Your task to perform on an android device: turn vacation reply on in the gmail app Image 0: 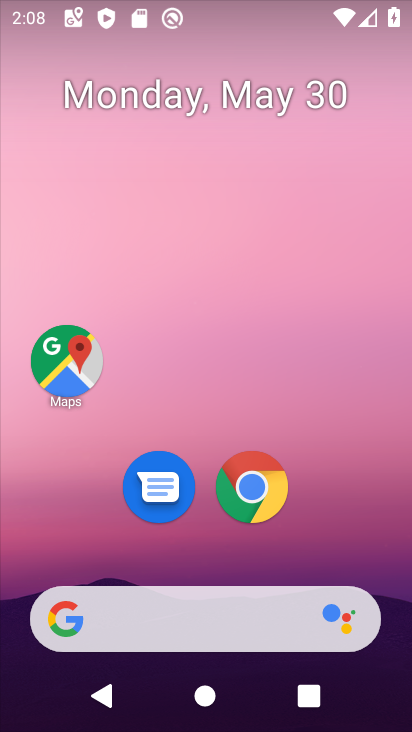
Step 0: drag from (152, 564) to (203, 15)
Your task to perform on an android device: turn vacation reply on in the gmail app Image 1: 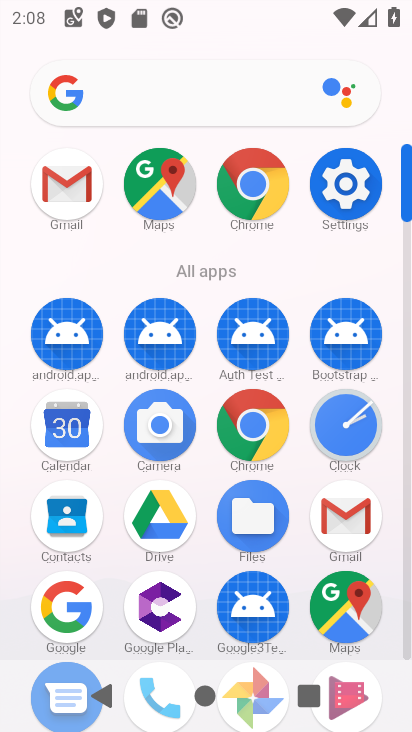
Step 1: click (65, 185)
Your task to perform on an android device: turn vacation reply on in the gmail app Image 2: 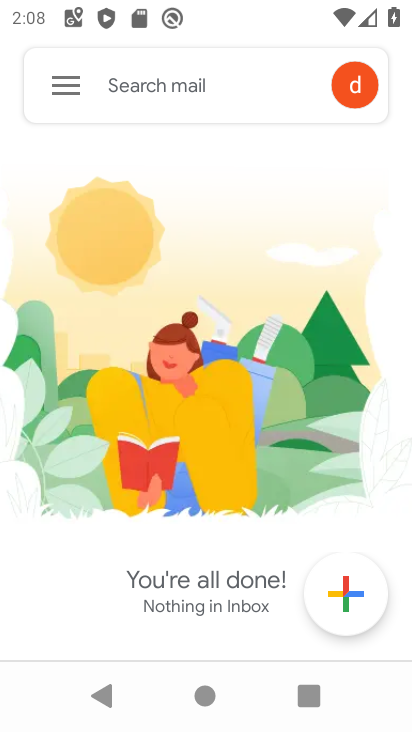
Step 2: click (57, 75)
Your task to perform on an android device: turn vacation reply on in the gmail app Image 3: 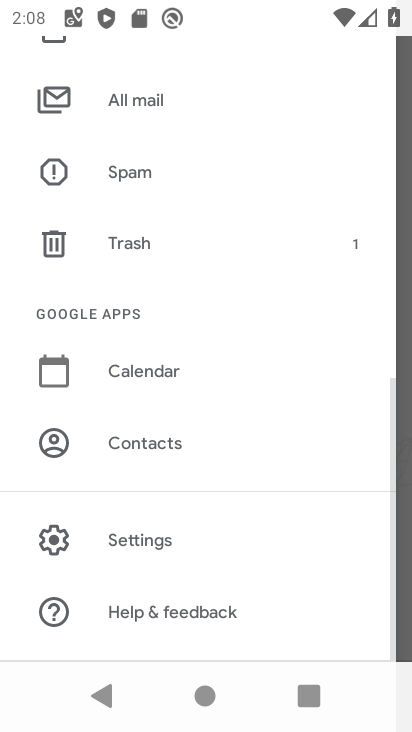
Step 3: click (142, 548)
Your task to perform on an android device: turn vacation reply on in the gmail app Image 4: 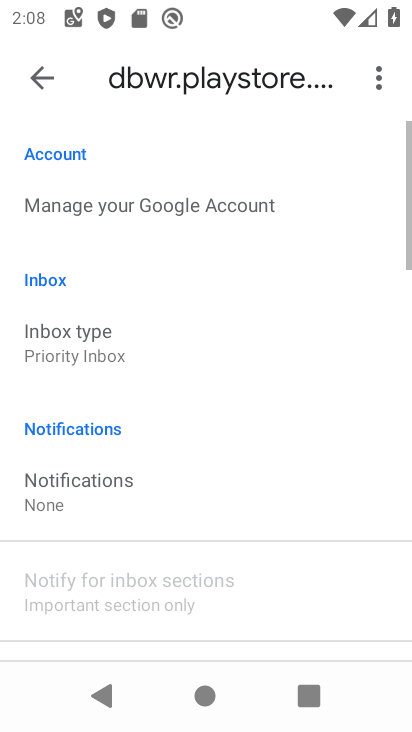
Step 4: drag from (106, 585) to (140, 113)
Your task to perform on an android device: turn vacation reply on in the gmail app Image 5: 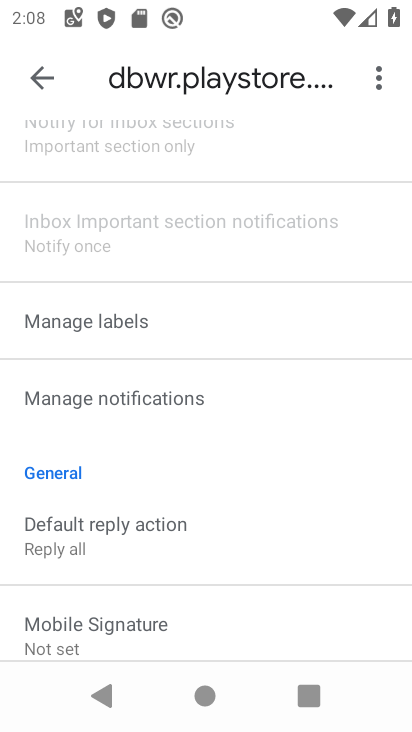
Step 5: drag from (103, 605) to (138, 222)
Your task to perform on an android device: turn vacation reply on in the gmail app Image 6: 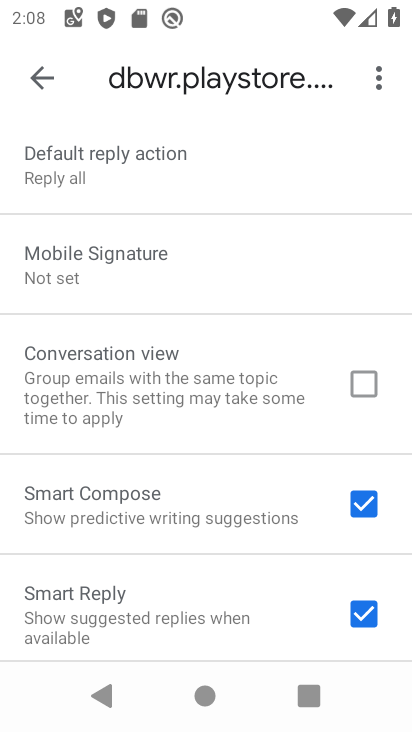
Step 6: drag from (129, 594) to (129, 280)
Your task to perform on an android device: turn vacation reply on in the gmail app Image 7: 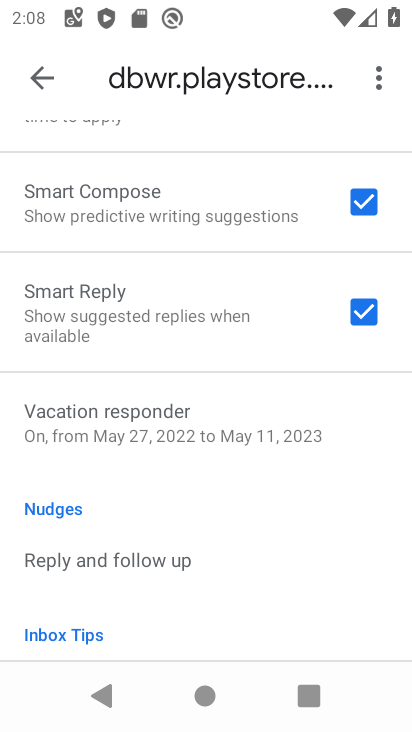
Step 7: click (117, 440)
Your task to perform on an android device: turn vacation reply on in the gmail app Image 8: 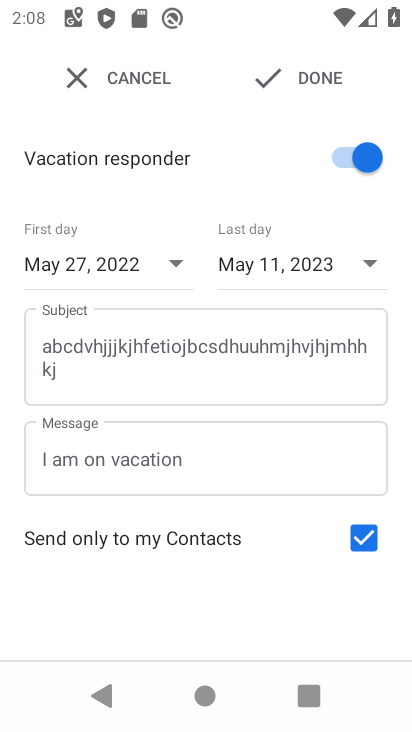
Step 8: task complete